Your task to perform on an android device: Search for pizza restaurants on Maps Image 0: 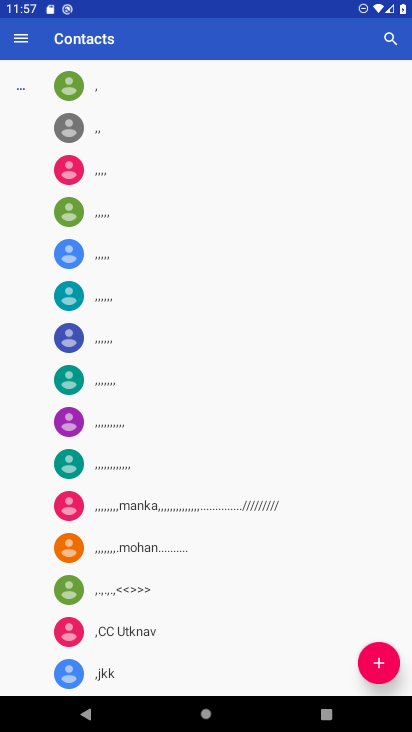
Step 0: press home button
Your task to perform on an android device: Search for pizza restaurants on Maps Image 1: 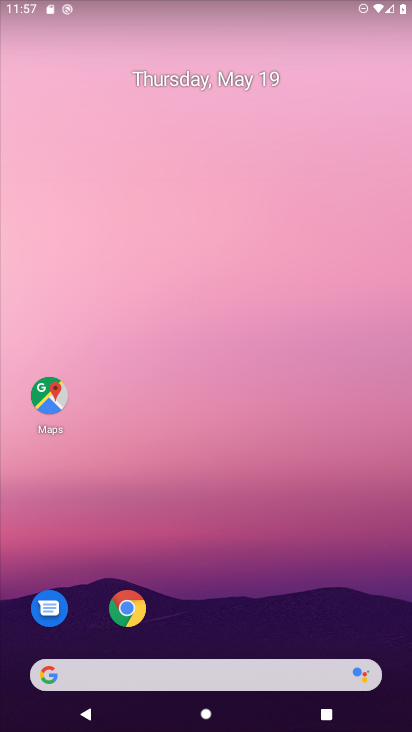
Step 1: click (46, 387)
Your task to perform on an android device: Search for pizza restaurants on Maps Image 2: 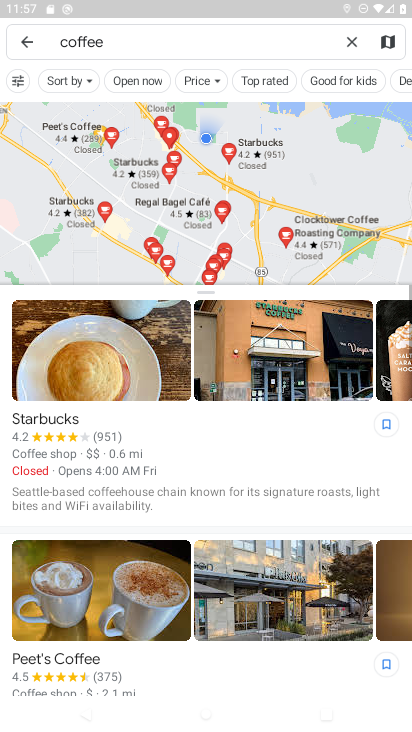
Step 2: click (349, 43)
Your task to perform on an android device: Search for pizza restaurants on Maps Image 3: 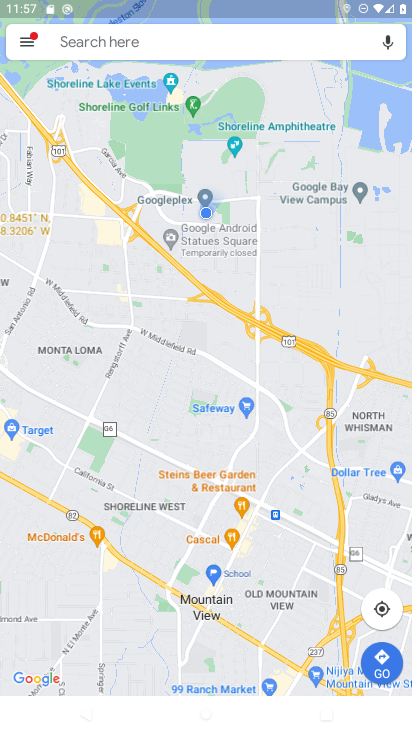
Step 3: type "pizza restaurants"
Your task to perform on an android device: Search for pizza restaurants on Maps Image 4: 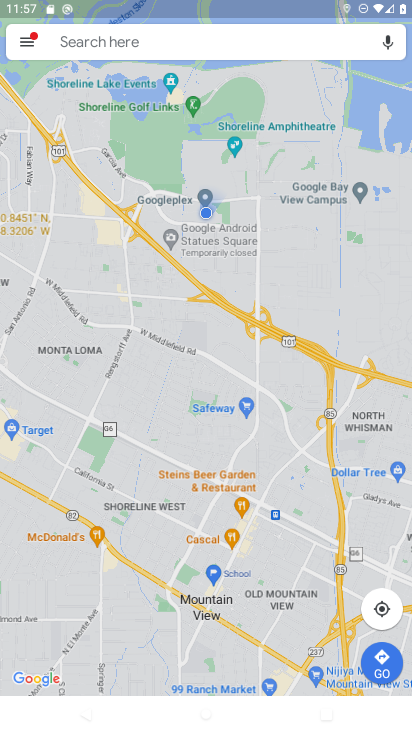
Step 4: click (249, 44)
Your task to perform on an android device: Search for pizza restaurants on Maps Image 5: 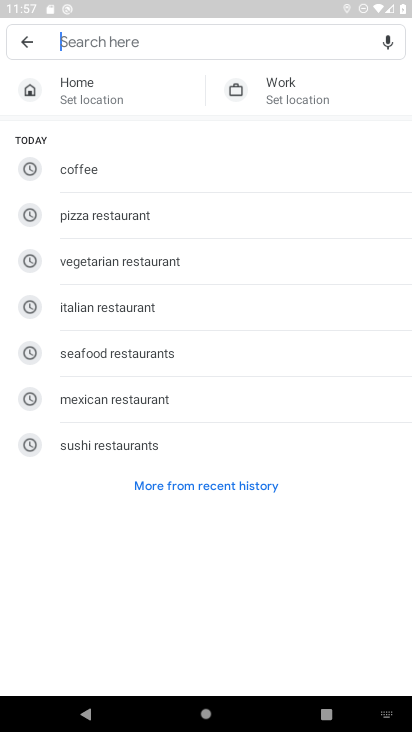
Step 5: type "pizza restaurants"
Your task to perform on an android device: Search for pizza restaurants on Maps Image 6: 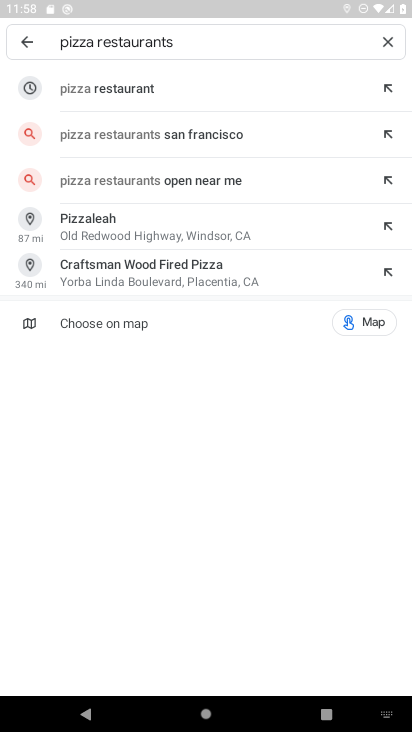
Step 6: click (100, 92)
Your task to perform on an android device: Search for pizza restaurants on Maps Image 7: 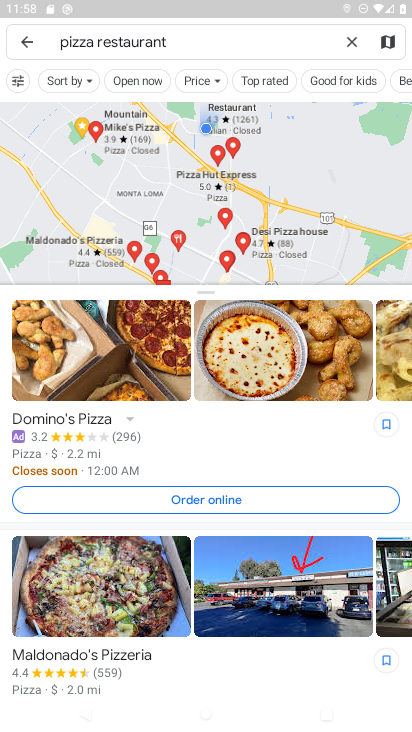
Step 7: task complete